Your task to perform on an android device: Go to location settings Image 0: 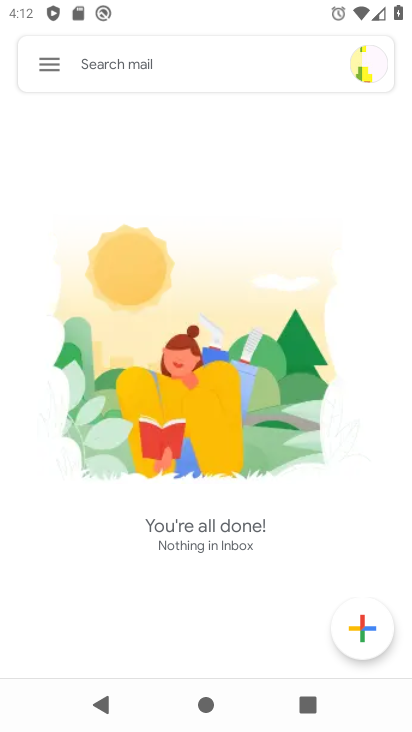
Step 0: press home button
Your task to perform on an android device: Go to location settings Image 1: 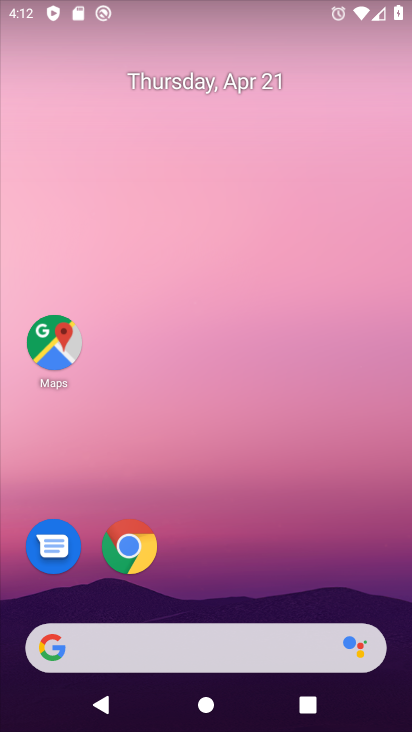
Step 1: drag from (271, 508) to (253, 115)
Your task to perform on an android device: Go to location settings Image 2: 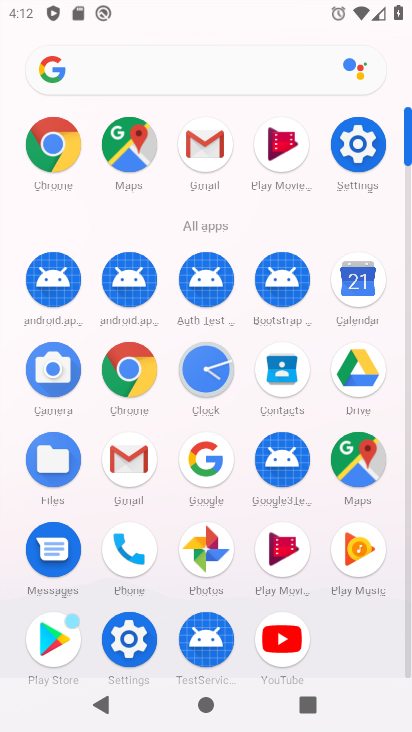
Step 2: click (144, 633)
Your task to perform on an android device: Go to location settings Image 3: 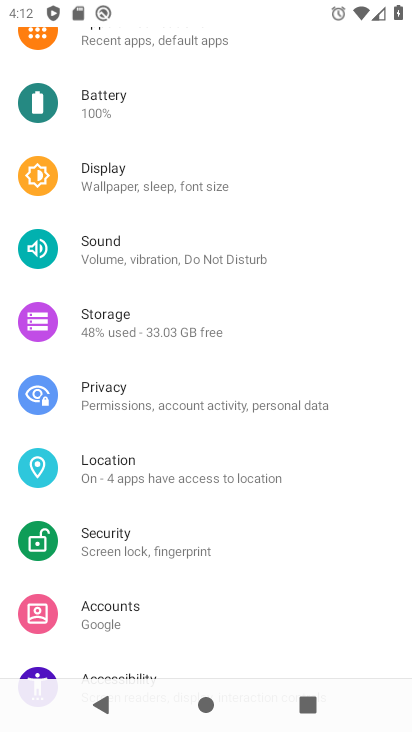
Step 3: click (151, 460)
Your task to perform on an android device: Go to location settings Image 4: 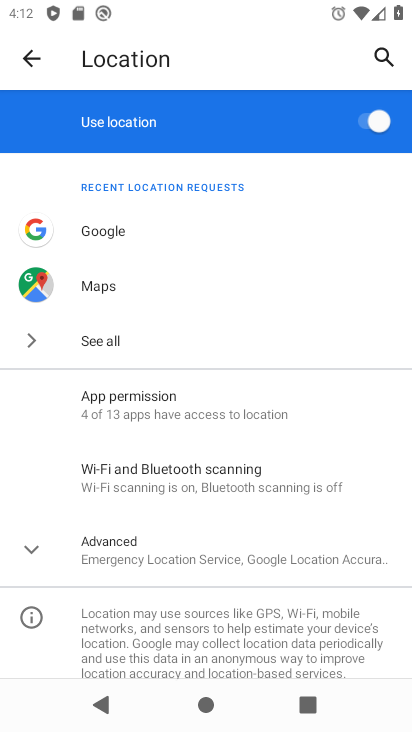
Step 4: task complete